Your task to perform on an android device: Go to display settings Image 0: 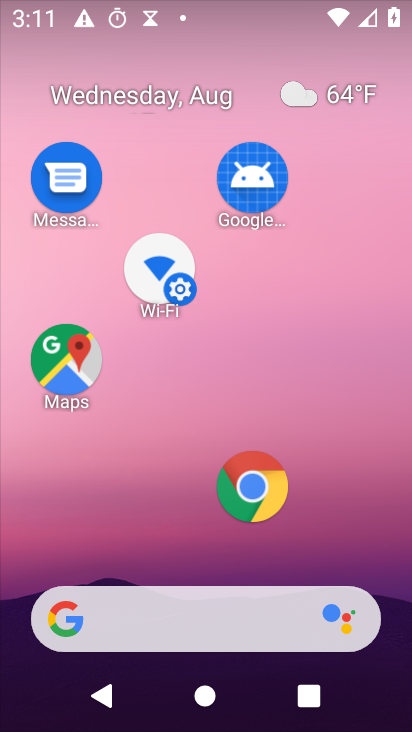
Step 0: press home button
Your task to perform on an android device: Go to display settings Image 1: 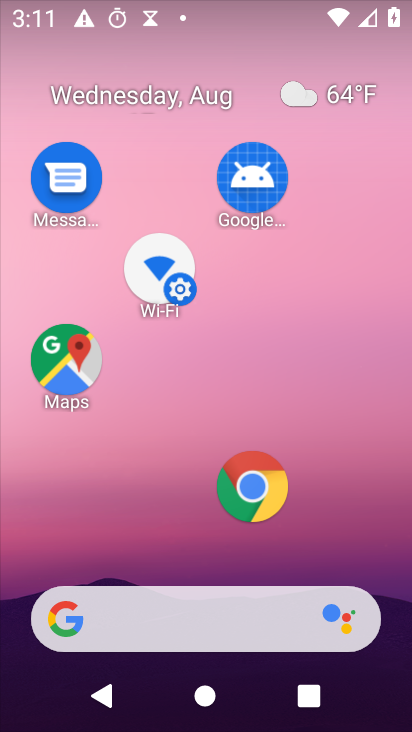
Step 1: press home button
Your task to perform on an android device: Go to display settings Image 2: 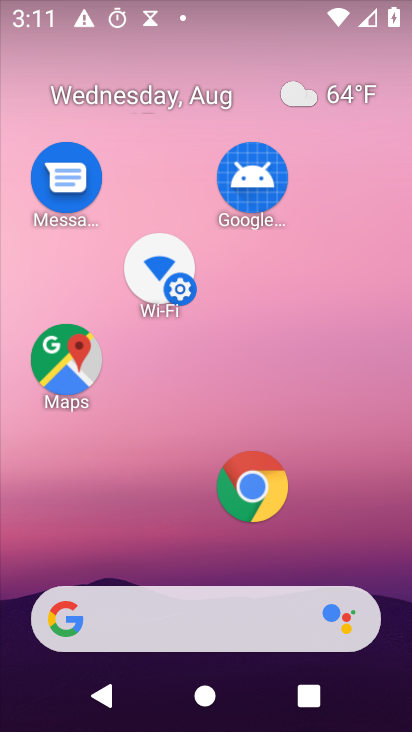
Step 2: drag from (346, 427) to (341, 63)
Your task to perform on an android device: Go to display settings Image 3: 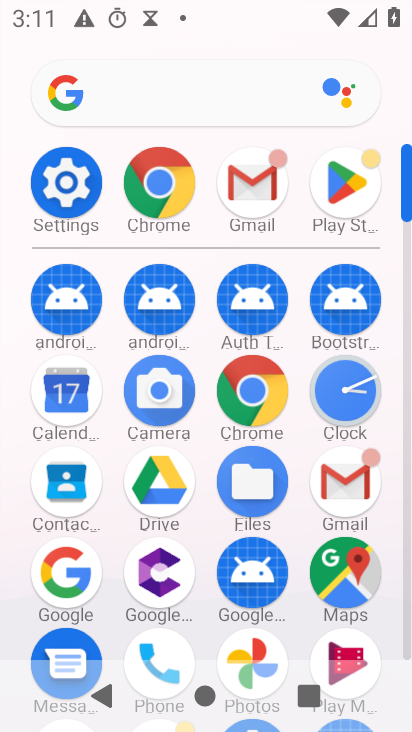
Step 3: click (54, 181)
Your task to perform on an android device: Go to display settings Image 4: 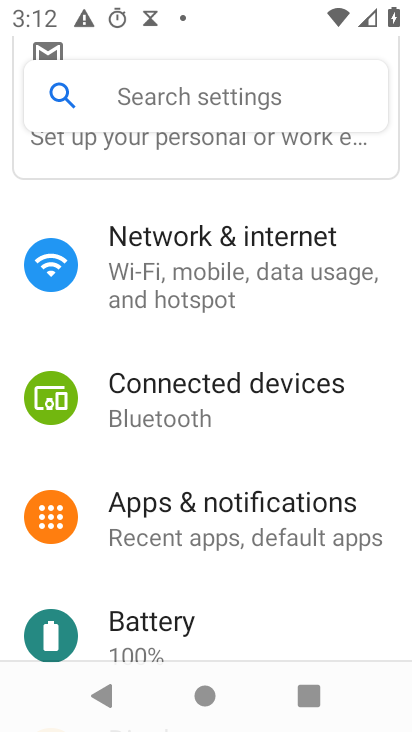
Step 4: drag from (311, 507) to (306, 207)
Your task to perform on an android device: Go to display settings Image 5: 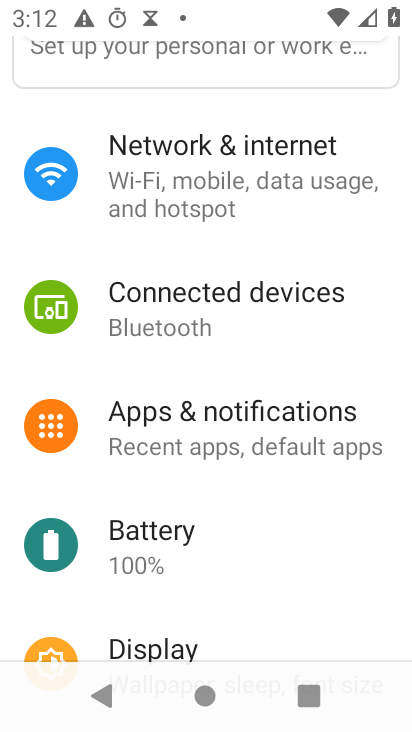
Step 5: click (148, 649)
Your task to perform on an android device: Go to display settings Image 6: 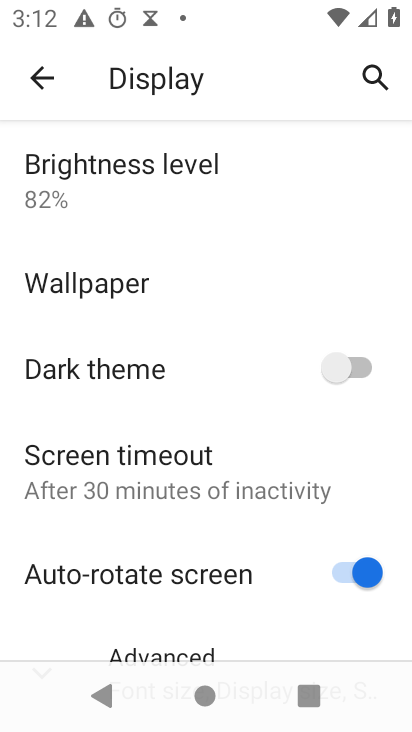
Step 6: task complete